Your task to perform on an android device: Search for sushi restaurants on Maps Image 0: 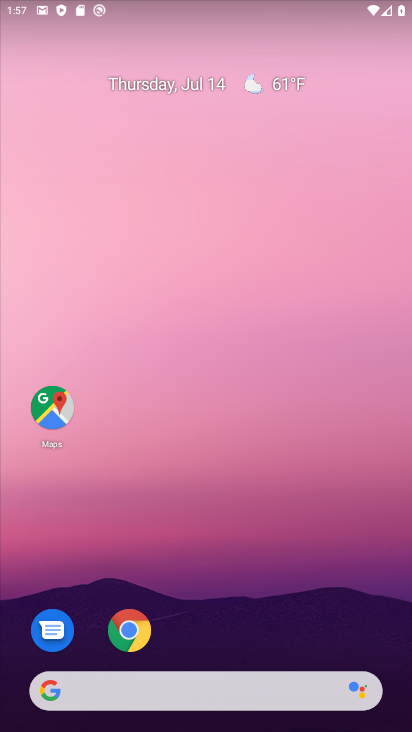
Step 0: click (46, 396)
Your task to perform on an android device: Search for sushi restaurants on Maps Image 1: 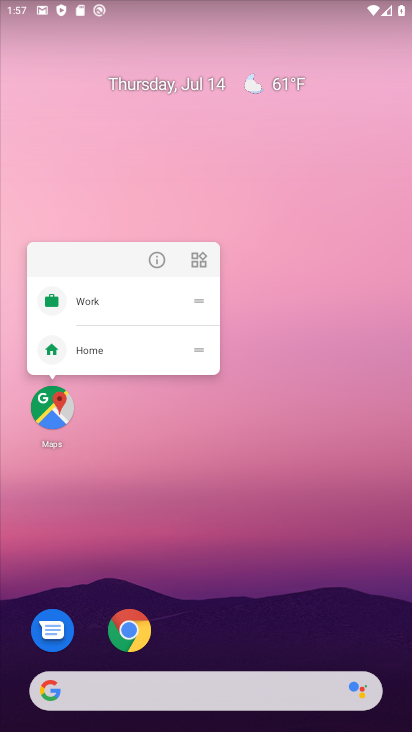
Step 1: click (40, 397)
Your task to perform on an android device: Search for sushi restaurants on Maps Image 2: 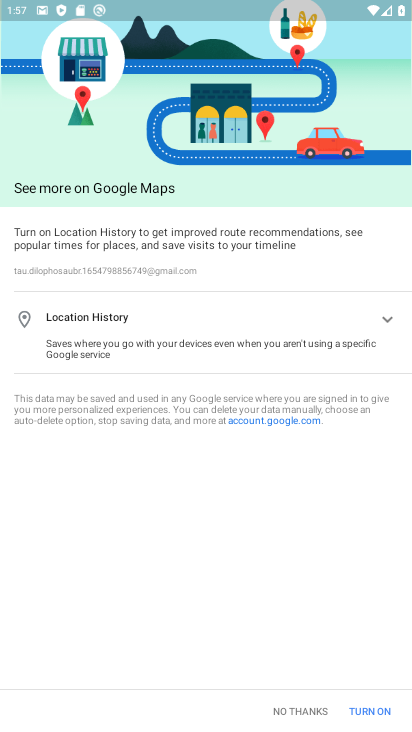
Step 2: click (285, 712)
Your task to perform on an android device: Search for sushi restaurants on Maps Image 3: 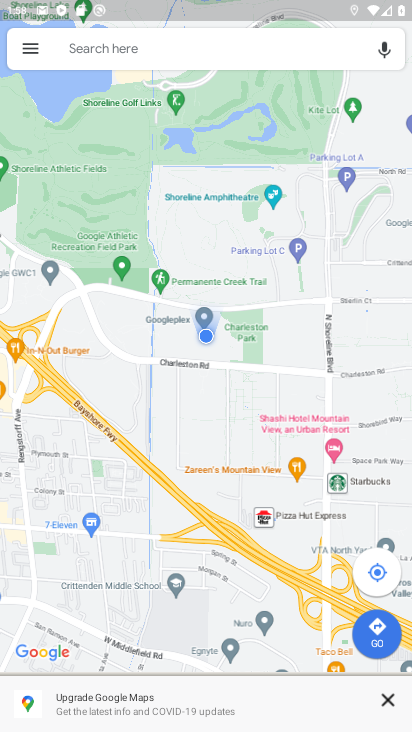
Step 3: click (132, 41)
Your task to perform on an android device: Search for sushi restaurants on Maps Image 4: 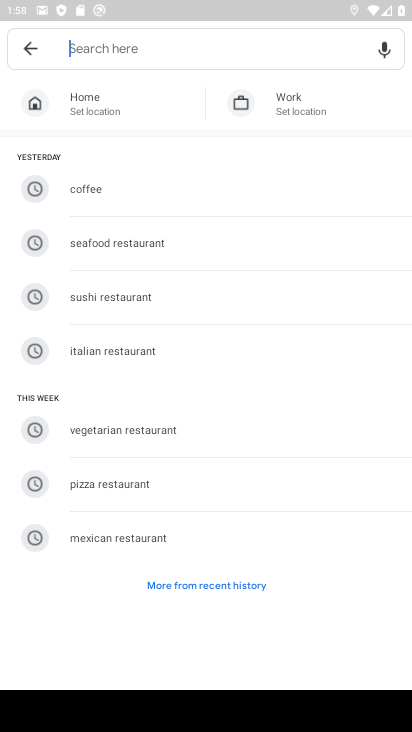
Step 4: click (148, 294)
Your task to perform on an android device: Search for sushi restaurants on Maps Image 5: 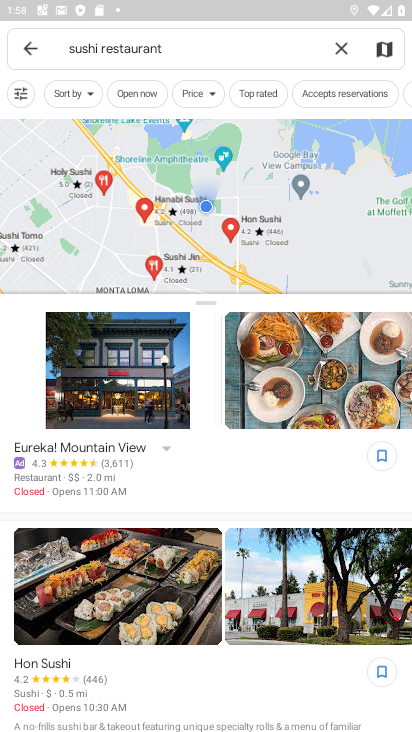
Step 5: task complete